Your task to perform on an android device: Go to Amazon Image 0: 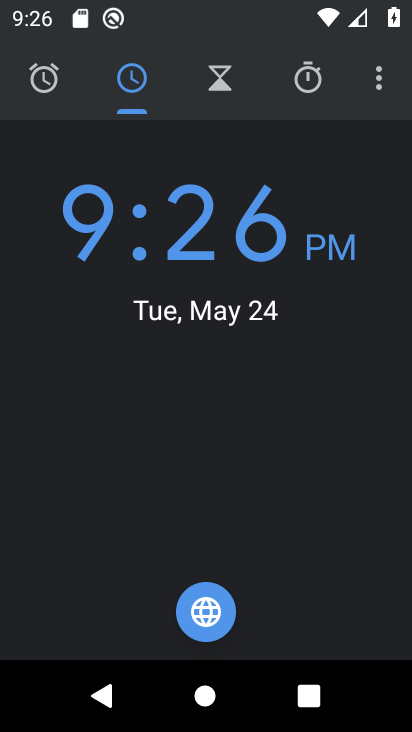
Step 0: press home button
Your task to perform on an android device: Go to Amazon Image 1: 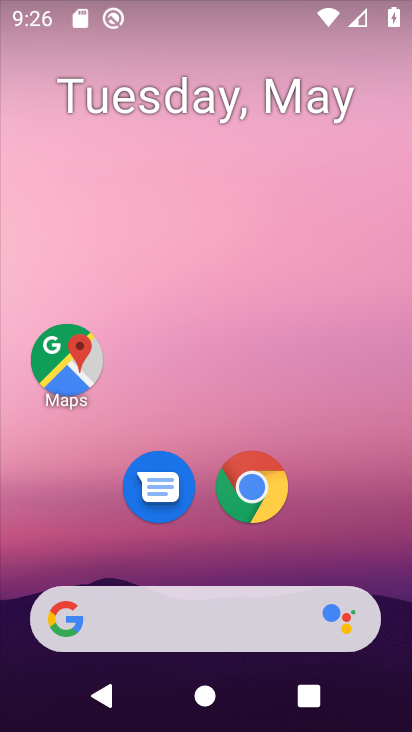
Step 1: click (251, 488)
Your task to perform on an android device: Go to Amazon Image 2: 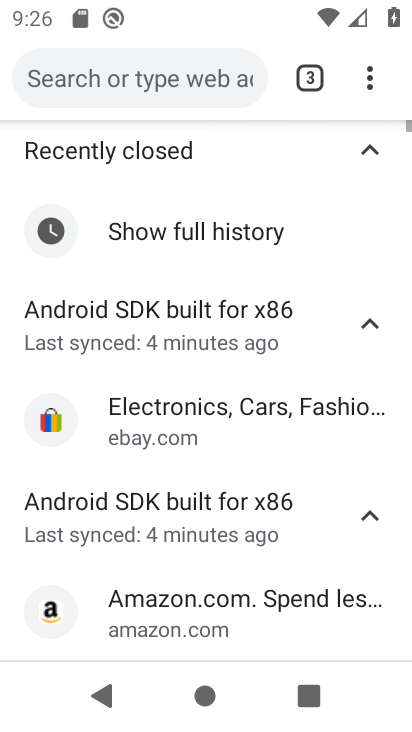
Step 2: drag from (367, 89) to (115, 154)
Your task to perform on an android device: Go to Amazon Image 3: 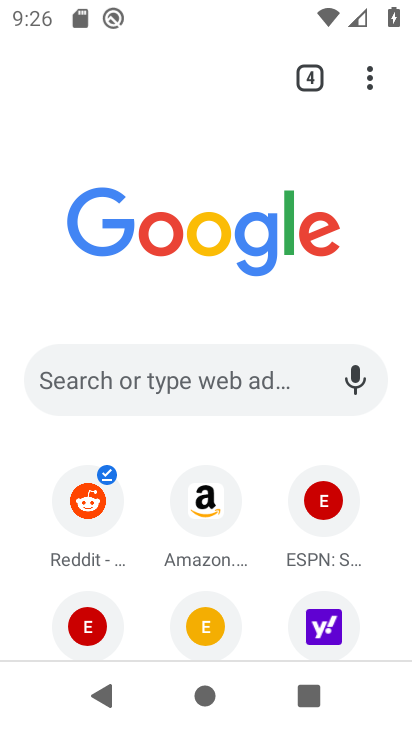
Step 3: click (209, 496)
Your task to perform on an android device: Go to Amazon Image 4: 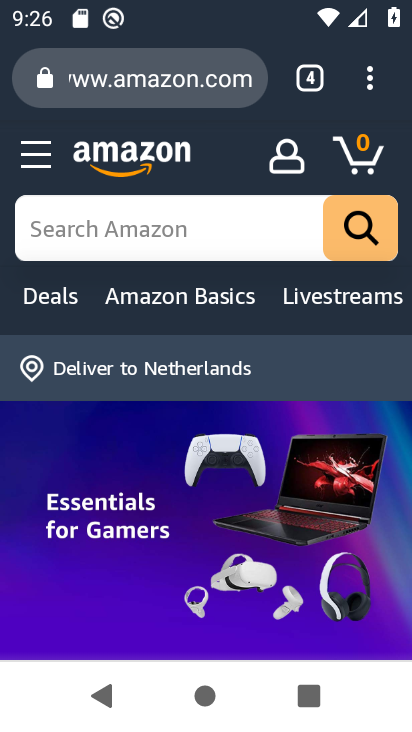
Step 4: task complete